Your task to perform on an android device: turn on translation in the chrome app Image 0: 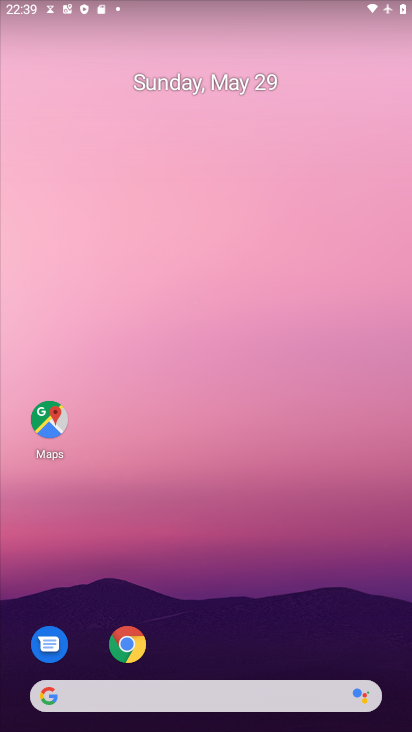
Step 0: drag from (259, 628) to (263, 296)
Your task to perform on an android device: turn on translation in the chrome app Image 1: 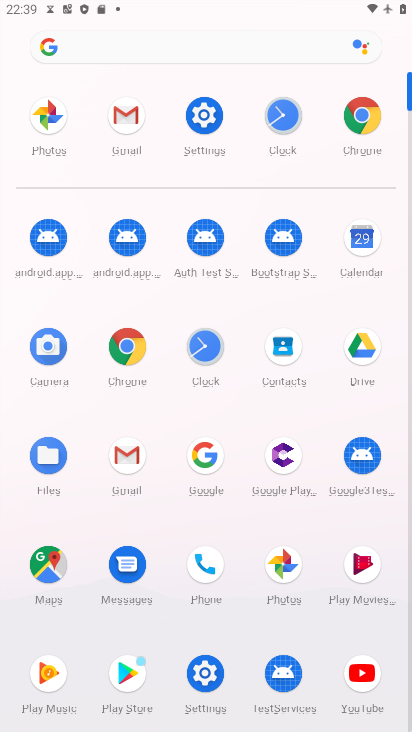
Step 1: click (123, 342)
Your task to perform on an android device: turn on translation in the chrome app Image 2: 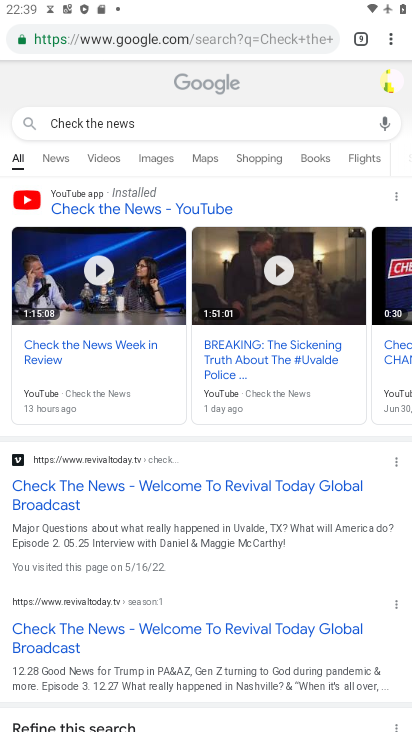
Step 2: click (393, 41)
Your task to perform on an android device: turn on translation in the chrome app Image 3: 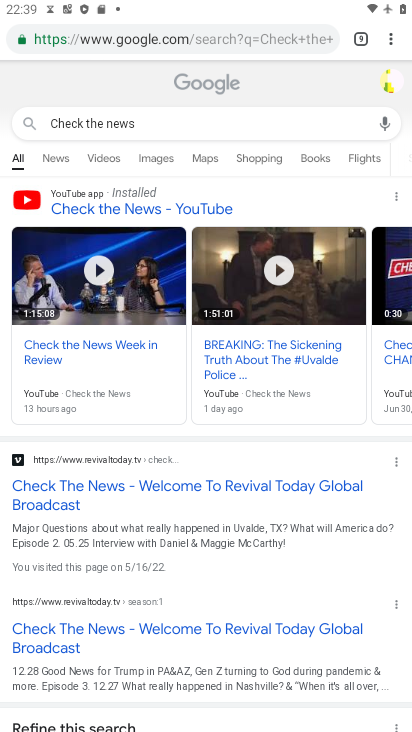
Step 3: click (394, 34)
Your task to perform on an android device: turn on translation in the chrome app Image 4: 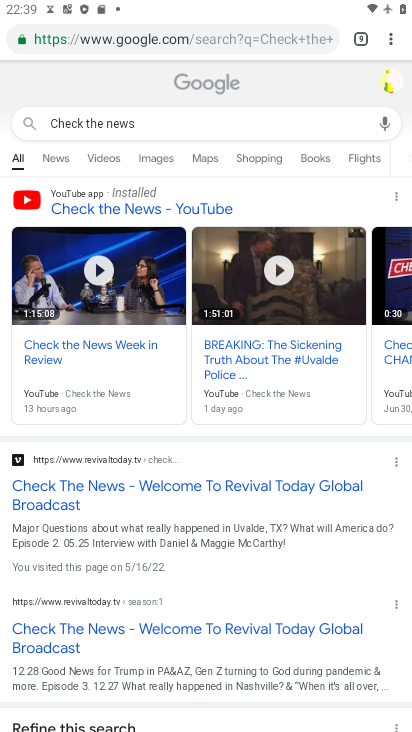
Step 4: click (389, 34)
Your task to perform on an android device: turn on translation in the chrome app Image 5: 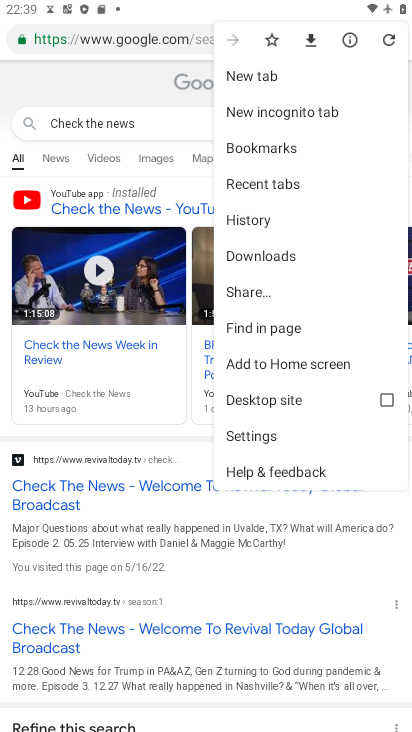
Step 5: click (286, 430)
Your task to perform on an android device: turn on translation in the chrome app Image 6: 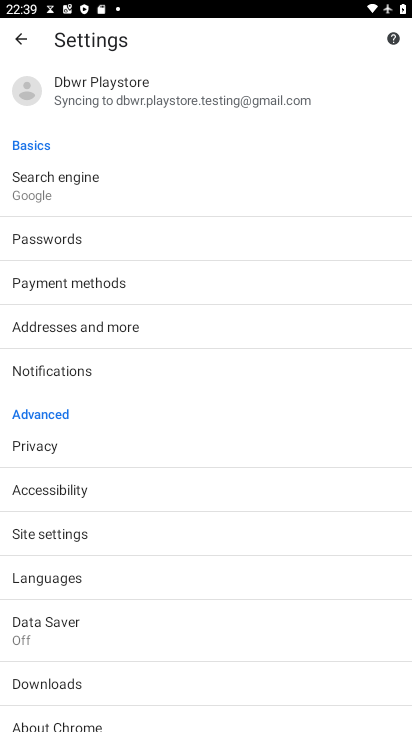
Step 6: drag from (143, 672) to (140, 548)
Your task to perform on an android device: turn on translation in the chrome app Image 7: 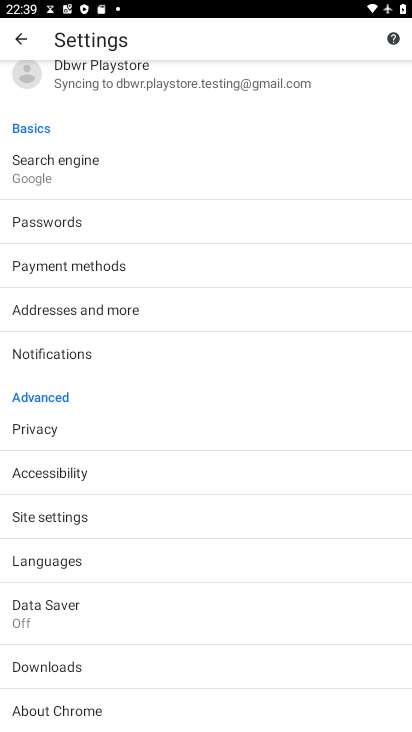
Step 7: click (102, 509)
Your task to perform on an android device: turn on translation in the chrome app Image 8: 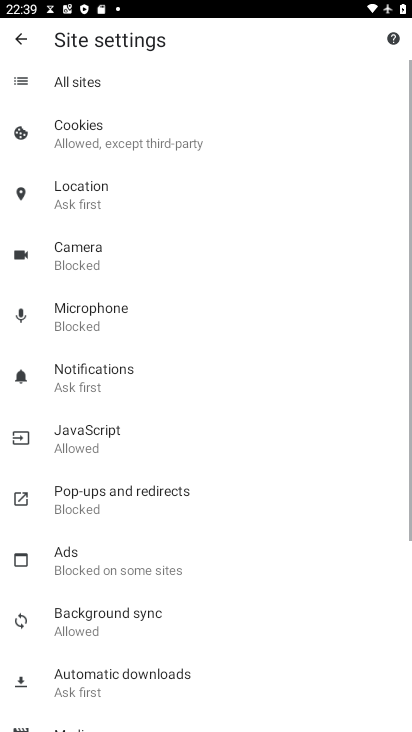
Step 8: click (21, 41)
Your task to perform on an android device: turn on translation in the chrome app Image 9: 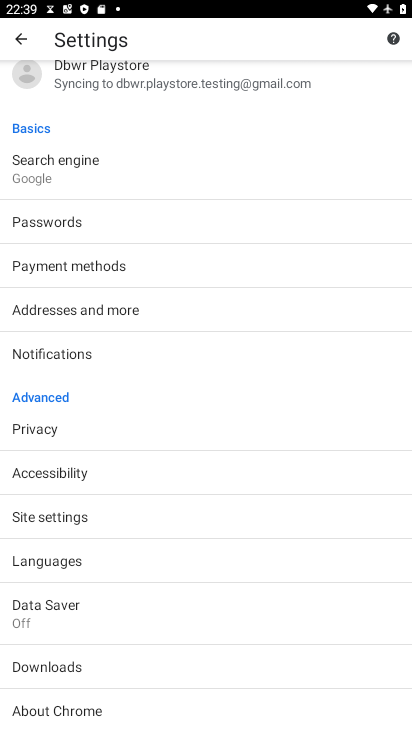
Step 9: click (127, 569)
Your task to perform on an android device: turn on translation in the chrome app Image 10: 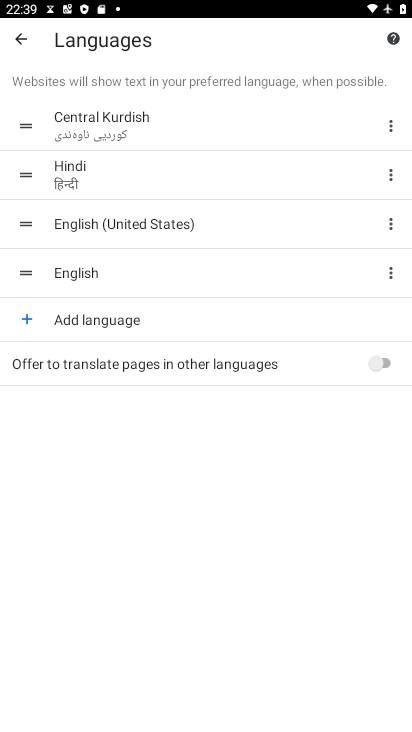
Step 10: click (381, 368)
Your task to perform on an android device: turn on translation in the chrome app Image 11: 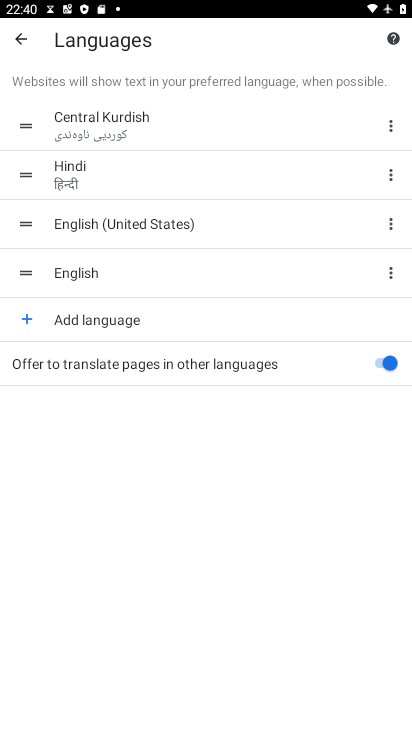
Step 11: task complete